Your task to perform on an android device: add a contact in the contacts app Image 0: 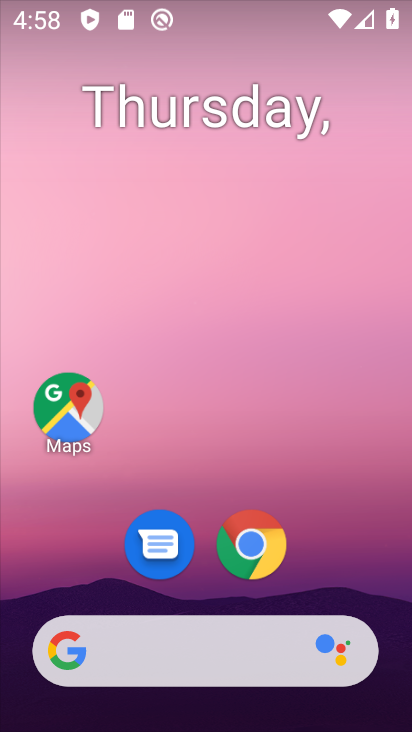
Step 0: drag from (336, 551) to (371, 91)
Your task to perform on an android device: add a contact in the contacts app Image 1: 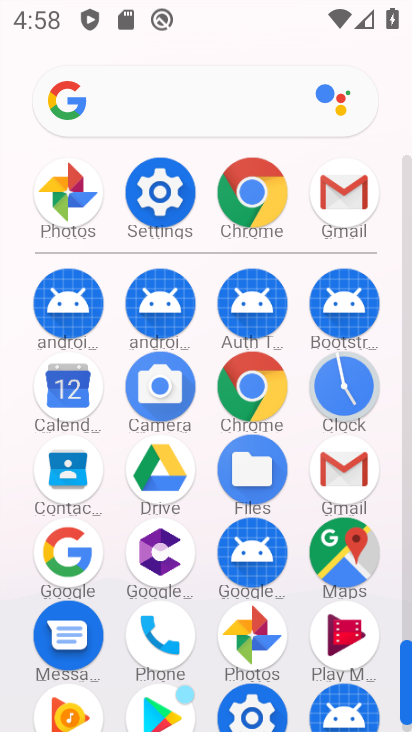
Step 1: click (70, 481)
Your task to perform on an android device: add a contact in the contacts app Image 2: 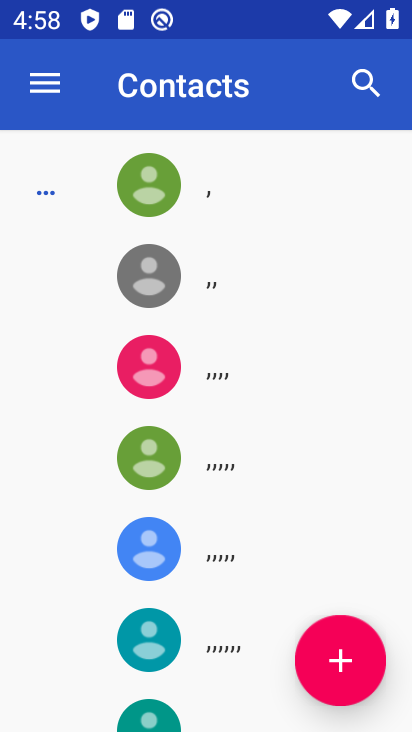
Step 2: click (358, 668)
Your task to perform on an android device: add a contact in the contacts app Image 3: 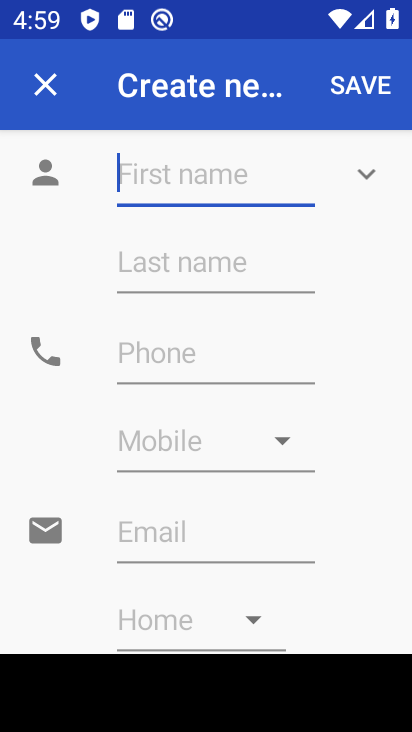
Step 3: type "sandeep"
Your task to perform on an android device: add a contact in the contacts app Image 4: 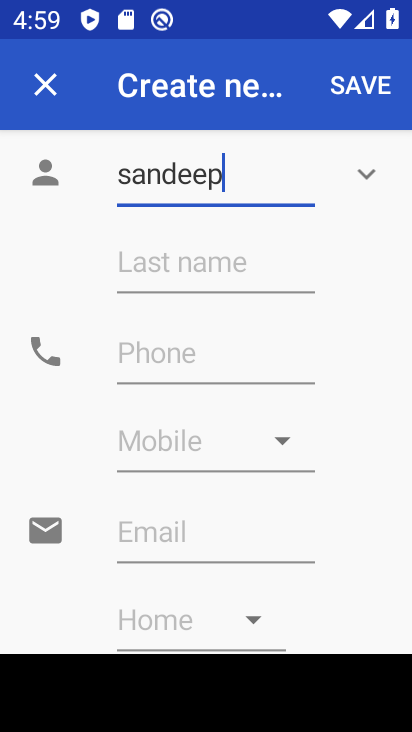
Step 4: type ""
Your task to perform on an android device: add a contact in the contacts app Image 5: 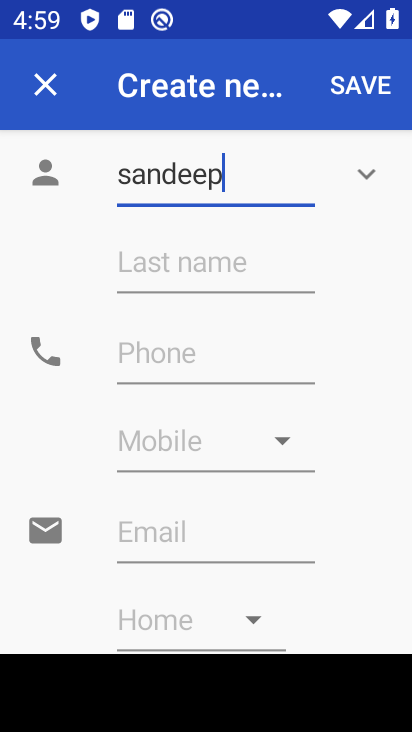
Step 5: click (230, 264)
Your task to perform on an android device: add a contact in the contacts app Image 6: 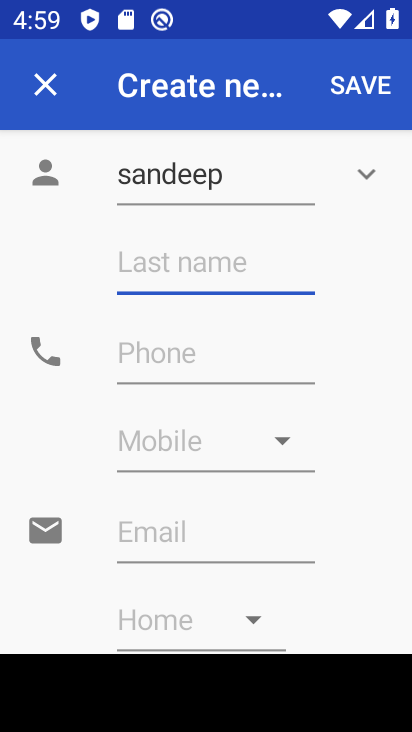
Step 6: type "maheshwari"
Your task to perform on an android device: add a contact in the contacts app Image 7: 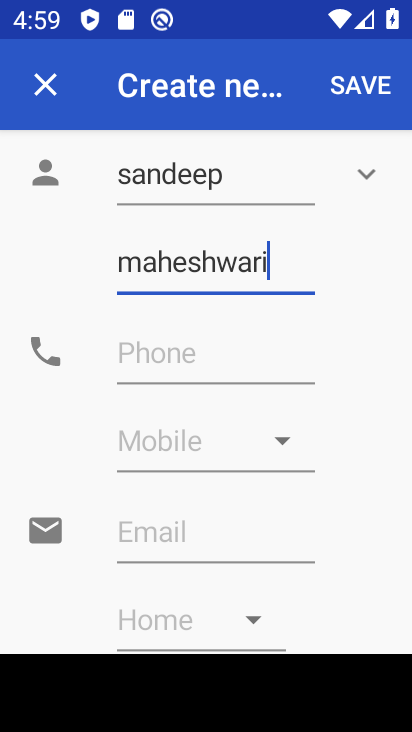
Step 7: type ""
Your task to perform on an android device: add a contact in the contacts app Image 8: 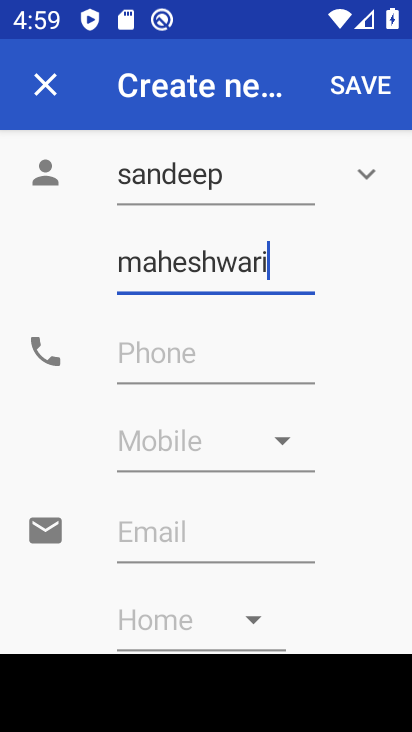
Step 8: click (187, 354)
Your task to perform on an android device: add a contact in the contacts app Image 9: 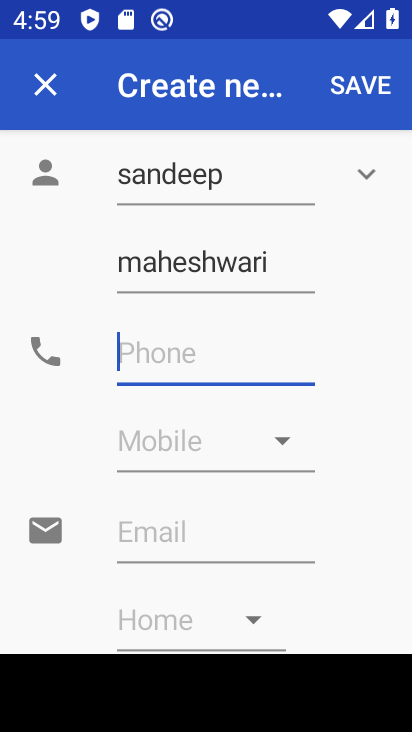
Step 9: type "9876598765"
Your task to perform on an android device: add a contact in the contacts app Image 10: 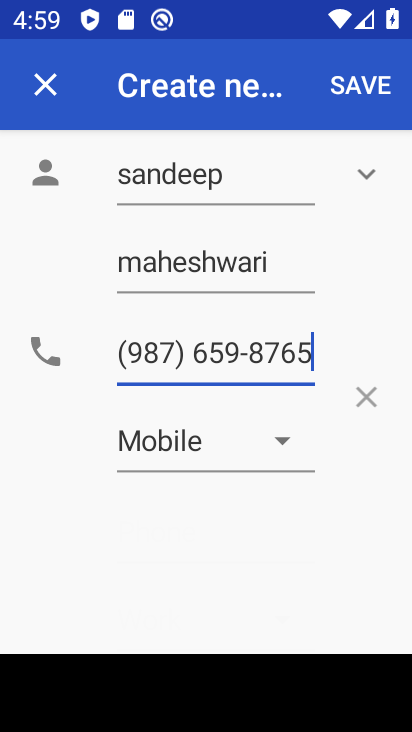
Step 10: type ""
Your task to perform on an android device: add a contact in the contacts app Image 11: 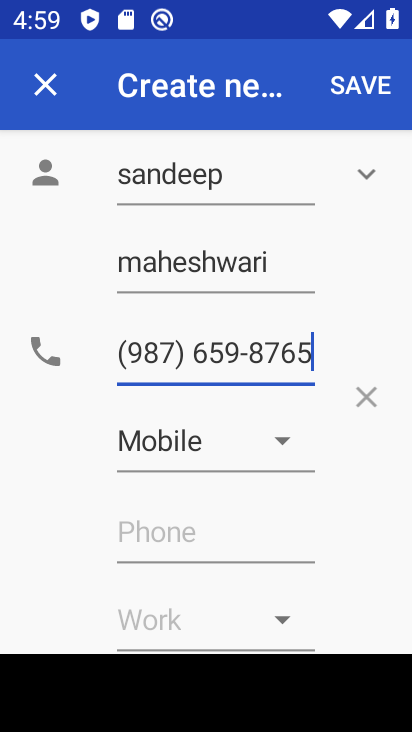
Step 11: click (379, 73)
Your task to perform on an android device: add a contact in the contacts app Image 12: 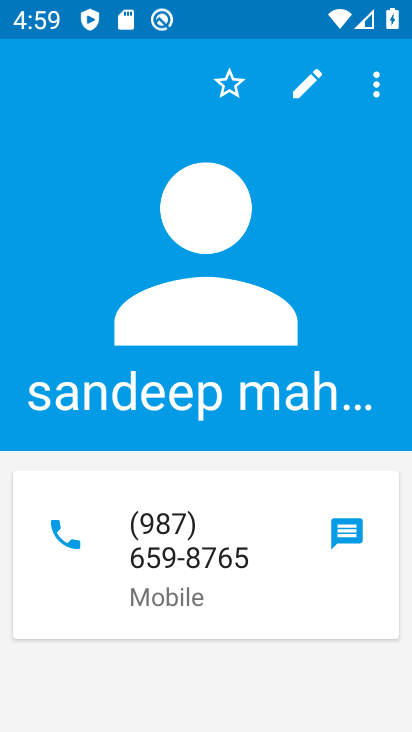
Step 12: task complete